Your task to perform on an android device: set the stopwatch Image 0: 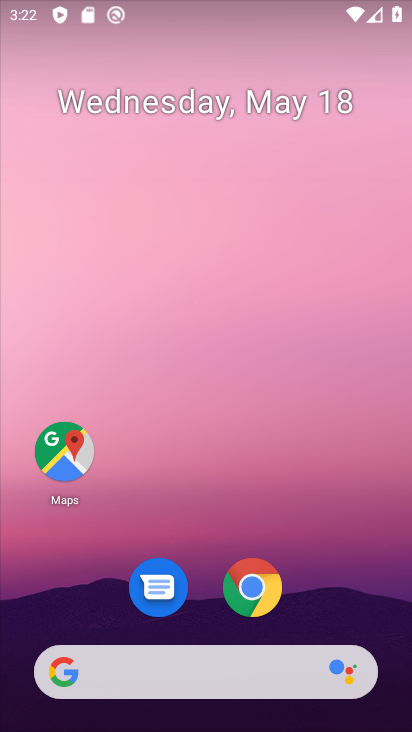
Step 0: drag from (333, 624) to (348, 67)
Your task to perform on an android device: set the stopwatch Image 1: 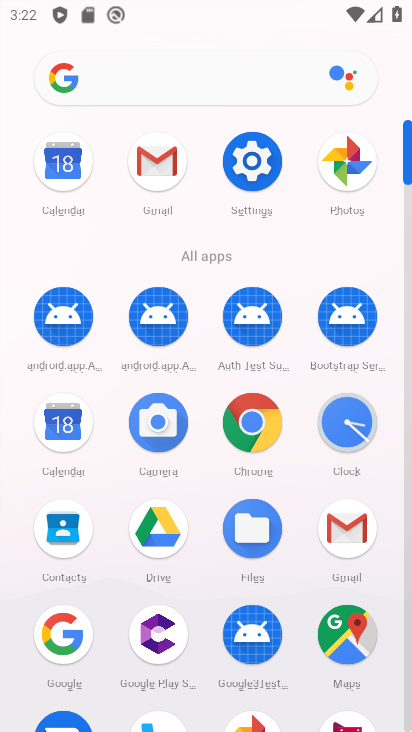
Step 1: click (354, 426)
Your task to perform on an android device: set the stopwatch Image 2: 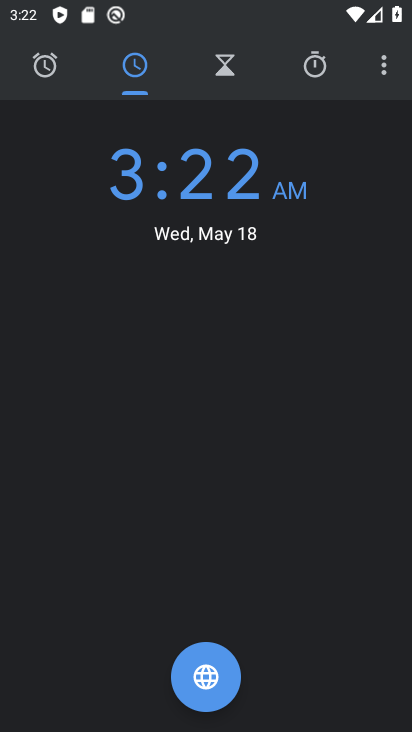
Step 2: click (303, 62)
Your task to perform on an android device: set the stopwatch Image 3: 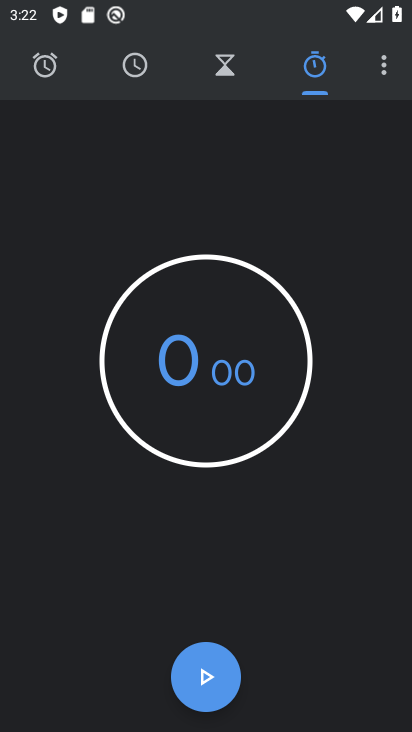
Step 3: click (221, 697)
Your task to perform on an android device: set the stopwatch Image 4: 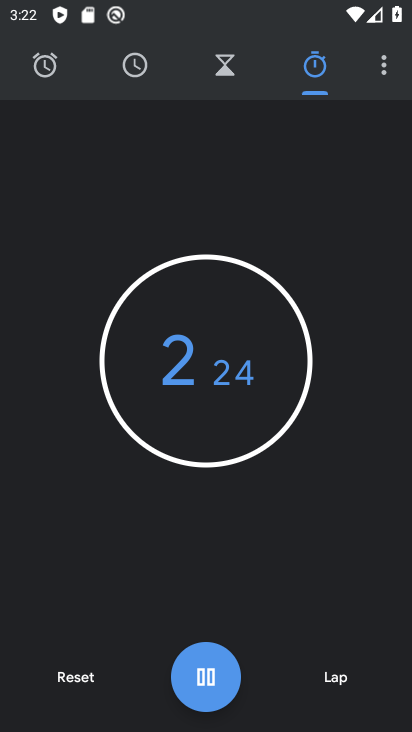
Step 4: click (221, 696)
Your task to perform on an android device: set the stopwatch Image 5: 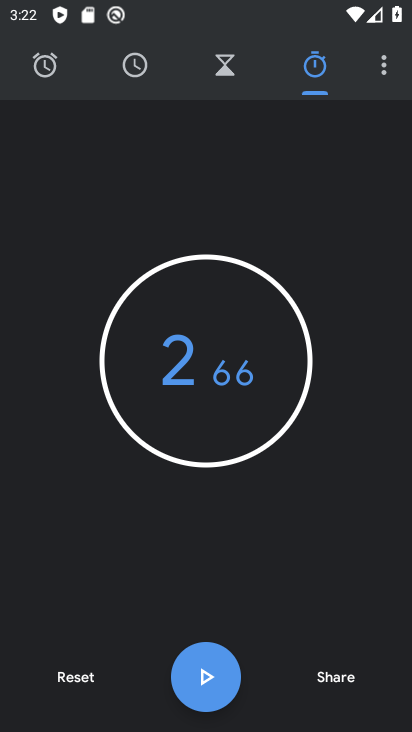
Step 5: task complete